Your task to perform on an android device: Go to ESPN.com Image 0: 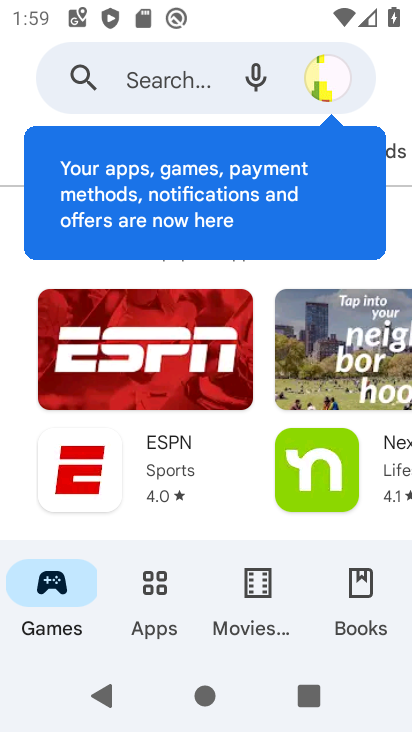
Step 0: press home button
Your task to perform on an android device: Go to ESPN.com Image 1: 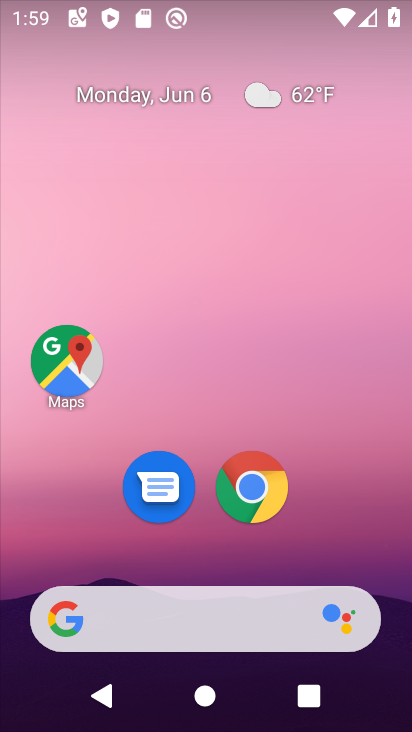
Step 1: click (273, 495)
Your task to perform on an android device: Go to ESPN.com Image 2: 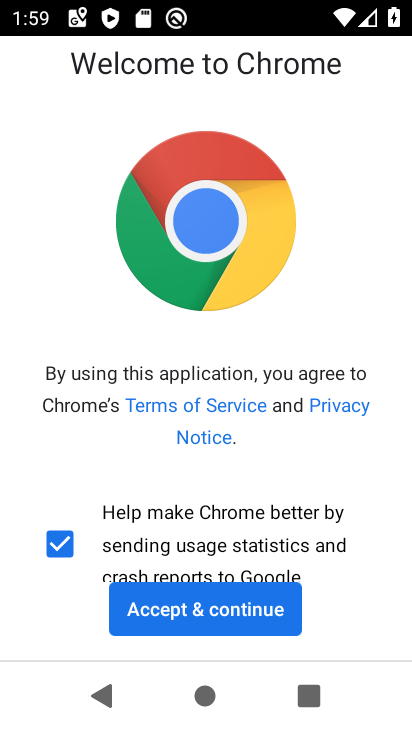
Step 2: click (233, 612)
Your task to perform on an android device: Go to ESPN.com Image 3: 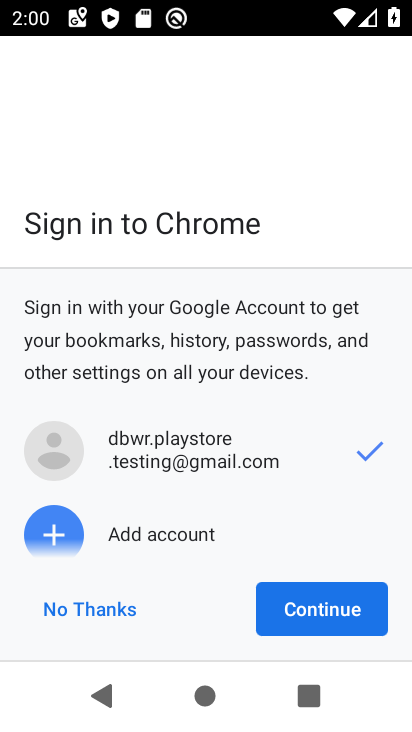
Step 3: click (343, 621)
Your task to perform on an android device: Go to ESPN.com Image 4: 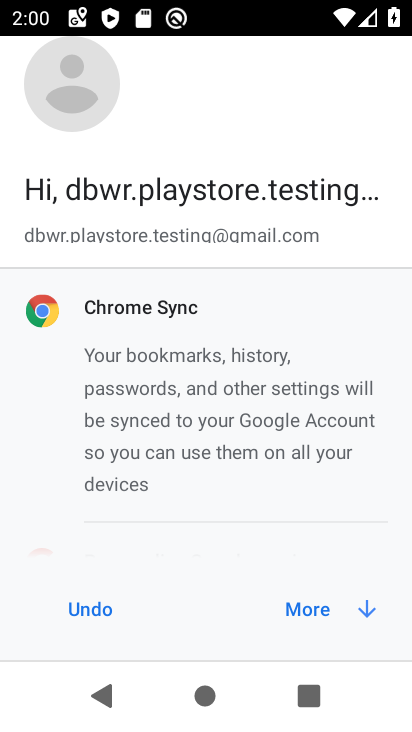
Step 4: click (343, 621)
Your task to perform on an android device: Go to ESPN.com Image 5: 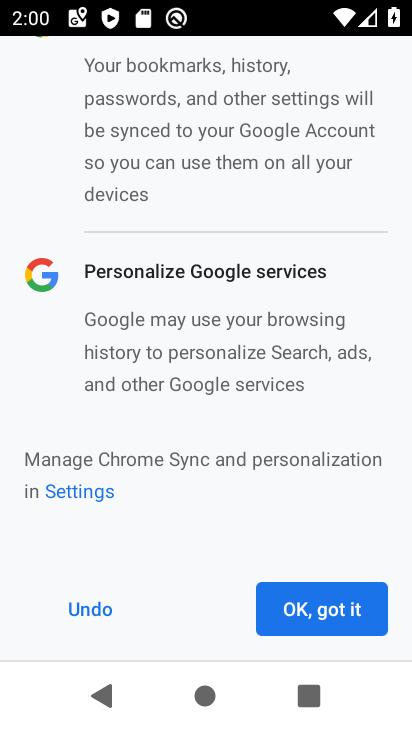
Step 5: click (343, 621)
Your task to perform on an android device: Go to ESPN.com Image 6: 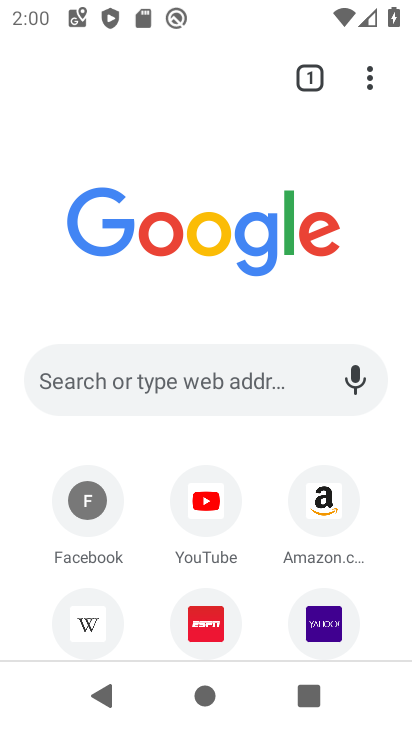
Step 6: click (210, 639)
Your task to perform on an android device: Go to ESPN.com Image 7: 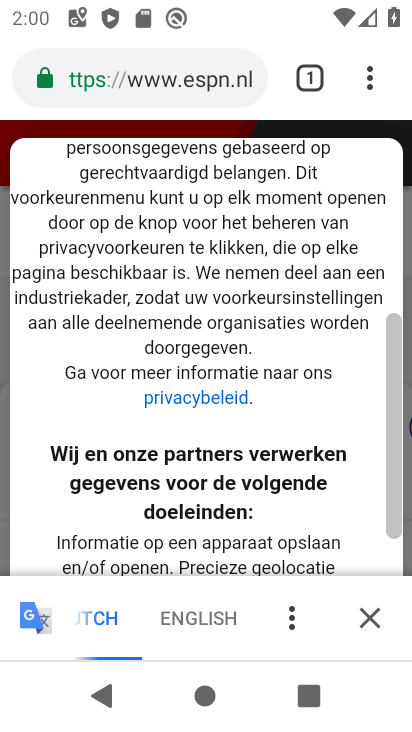
Step 7: click (379, 627)
Your task to perform on an android device: Go to ESPN.com Image 8: 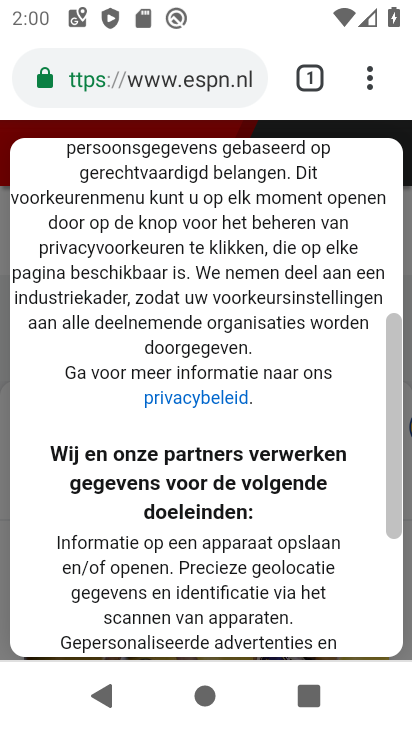
Step 8: drag from (258, 633) to (365, 197)
Your task to perform on an android device: Go to ESPN.com Image 9: 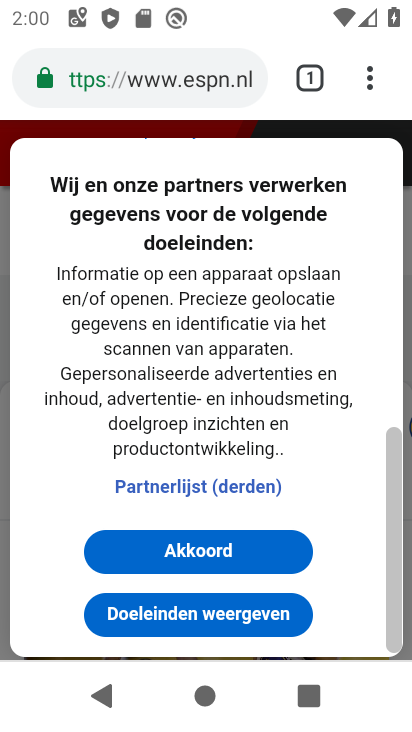
Step 9: click (264, 571)
Your task to perform on an android device: Go to ESPN.com Image 10: 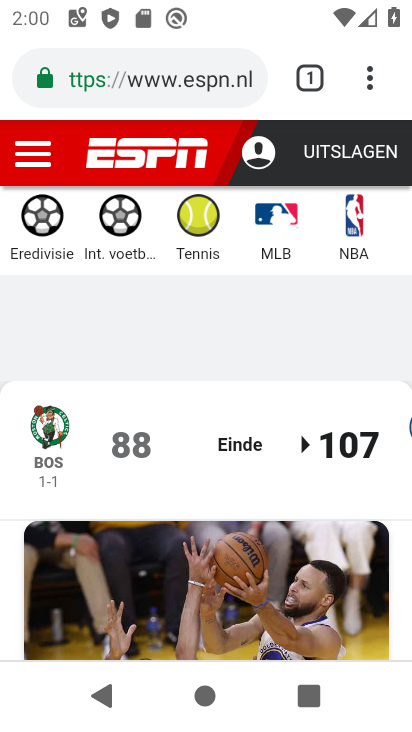
Step 10: task complete